Your task to perform on an android device: Open Android settings Image 0: 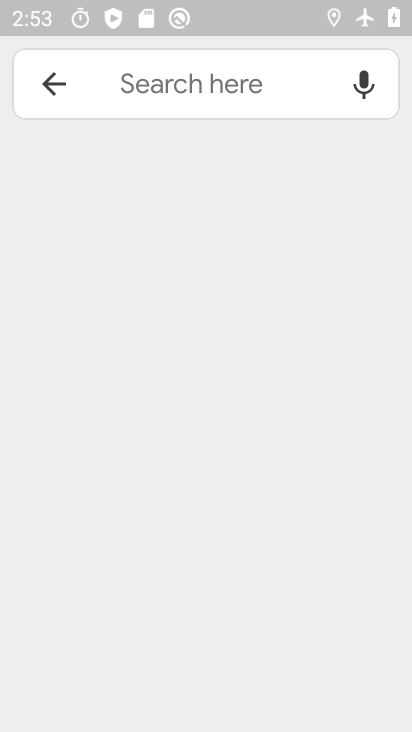
Step 0: press home button
Your task to perform on an android device: Open Android settings Image 1: 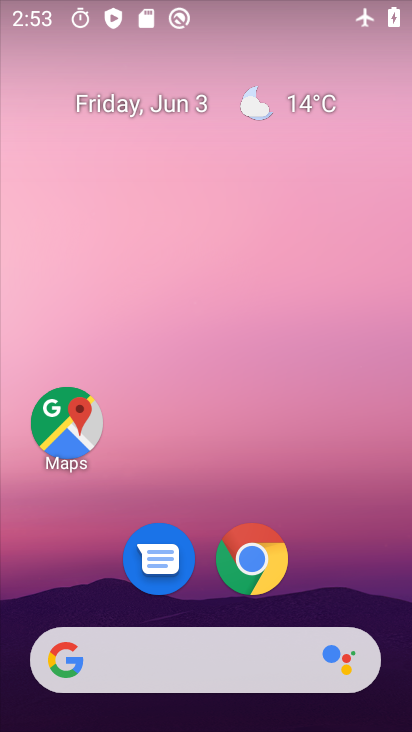
Step 1: drag from (214, 617) to (168, 99)
Your task to perform on an android device: Open Android settings Image 2: 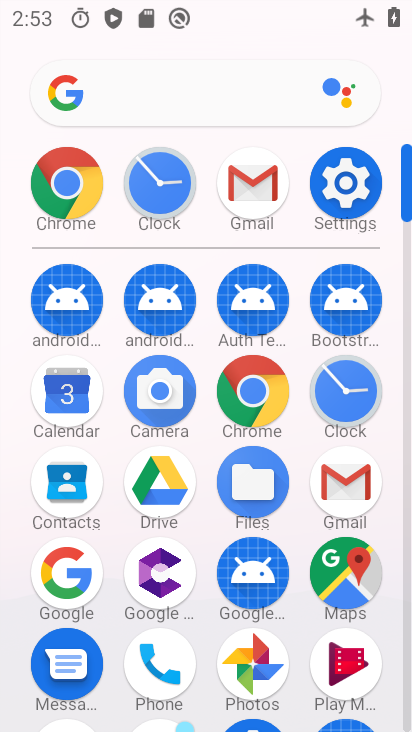
Step 2: click (351, 194)
Your task to perform on an android device: Open Android settings Image 3: 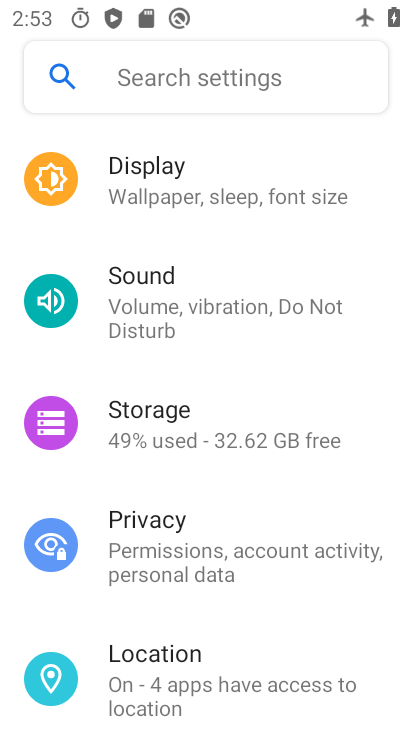
Step 3: drag from (182, 241) to (131, 696)
Your task to perform on an android device: Open Android settings Image 4: 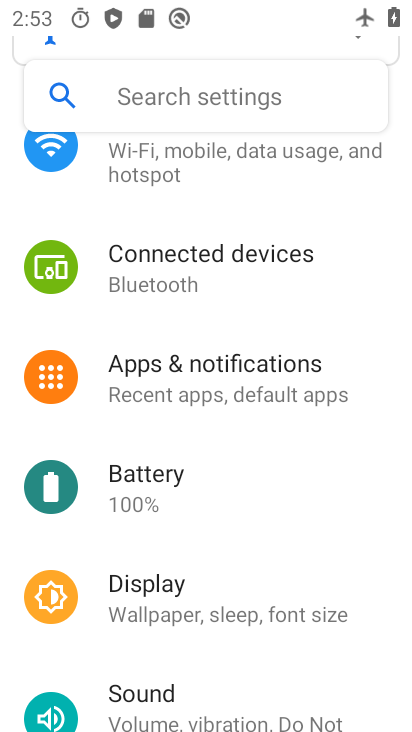
Step 4: click (202, 178)
Your task to perform on an android device: Open Android settings Image 5: 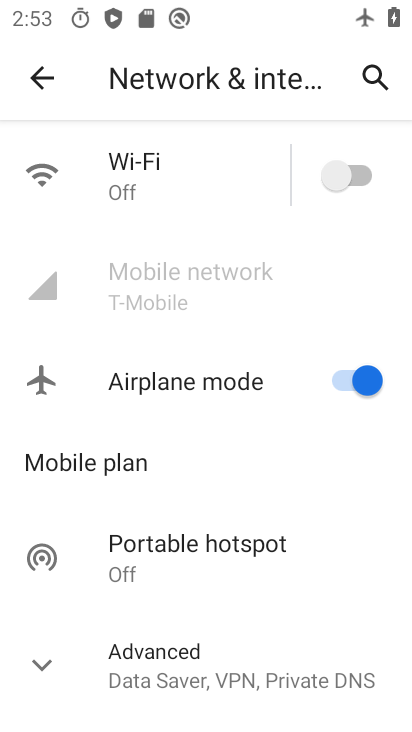
Step 5: task complete